Your task to perform on an android device: open app "Google Pay: Save, Pay, Manage" (install if not already installed) Image 0: 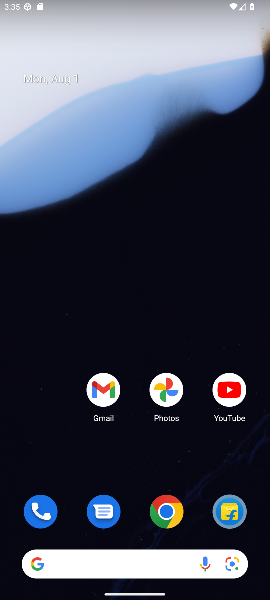
Step 0: drag from (142, 385) to (154, 115)
Your task to perform on an android device: open app "Google Pay: Save, Pay, Manage" (install if not already installed) Image 1: 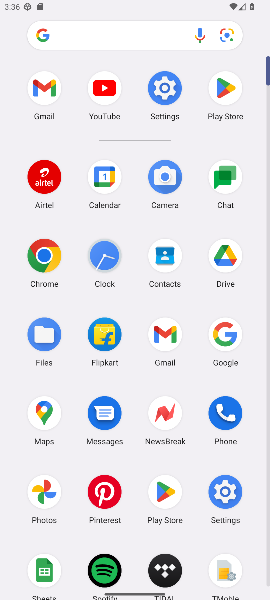
Step 1: click (223, 111)
Your task to perform on an android device: open app "Google Pay: Save, Pay, Manage" (install if not already installed) Image 2: 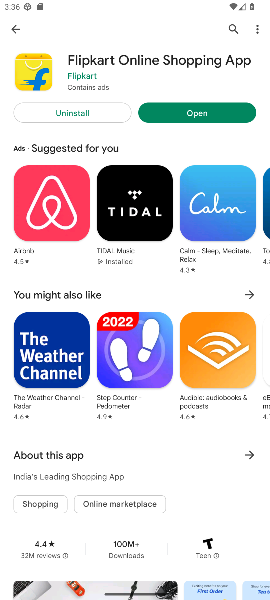
Step 2: click (12, 23)
Your task to perform on an android device: open app "Google Pay: Save, Pay, Manage" (install if not already installed) Image 3: 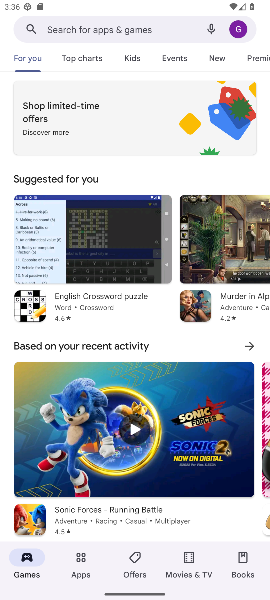
Step 3: click (79, 31)
Your task to perform on an android device: open app "Google Pay: Save, Pay, Manage" (install if not already installed) Image 4: 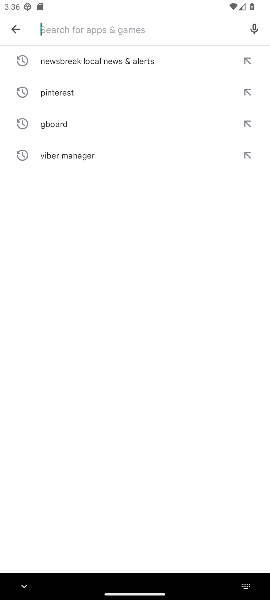
Step 4: type "Google Pay"
Your task to perform on an android device: open app "Google Pay: Save, Pay, Manage" (install if not already installed) Image 5: 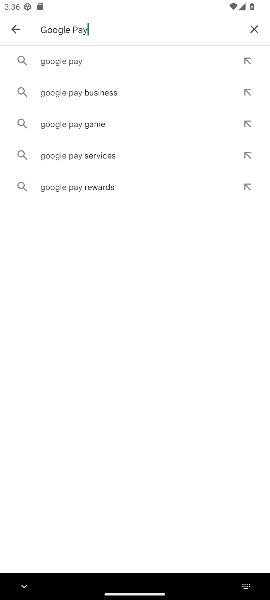
Step 5: click (68, 67)
Your task to perform on an android device: open app "Google Pay: Save, Pay, Manage" (install if not already installed) Image 6: 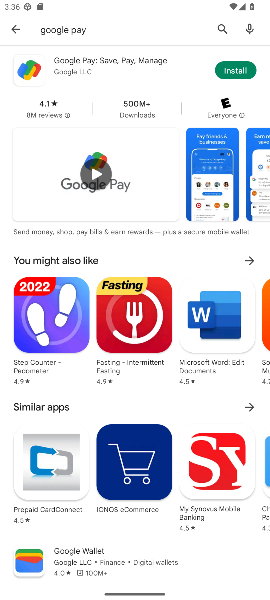
Step 6: click (245, 67)
Your task to perform on an android device: open app "Google Pay: Save, Pay, Manage" (install if not already installed) Image 7: 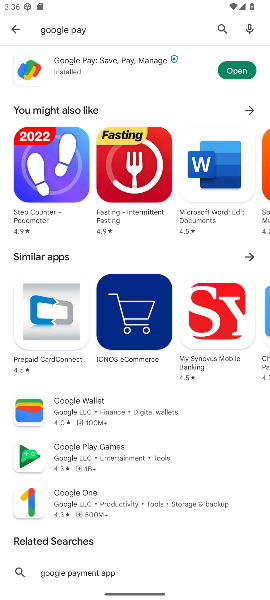
Step 7: click (224, 68)
Your task to perform on an android device: open app "Google Pay: Save, Pay, Manage" (install if not already installed) Image 8: 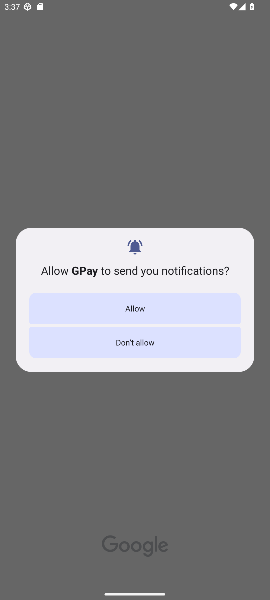
Step 8: click (130, 310)
Your task to perform on an android device: open app "Google Pay: Save, Pay, Manage" (install if not already installed) Image 9: 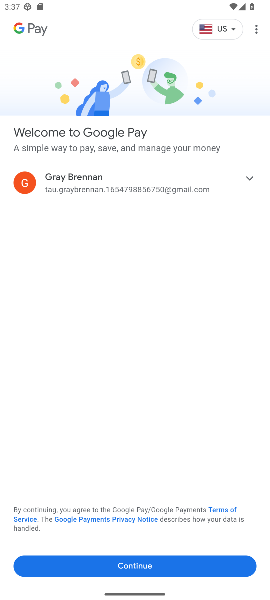
Step 9: task complete